Your task to perform on an android device: Turn on the flashlight Image 0: 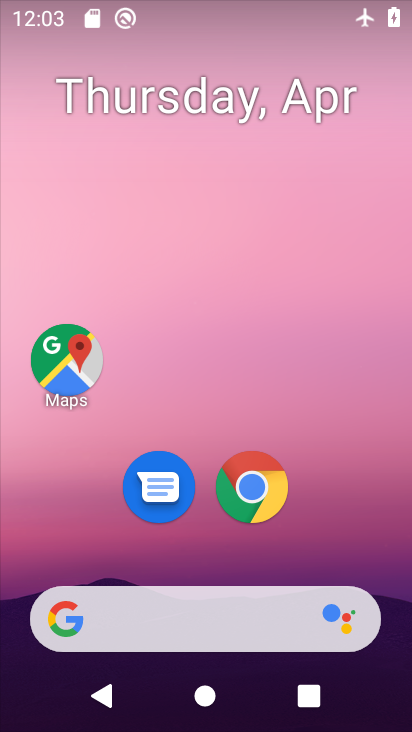
Step 0: drag from (219, 659) to (393, 43)
Your task to perform on an android device: Turn on the flashlight Image 1: 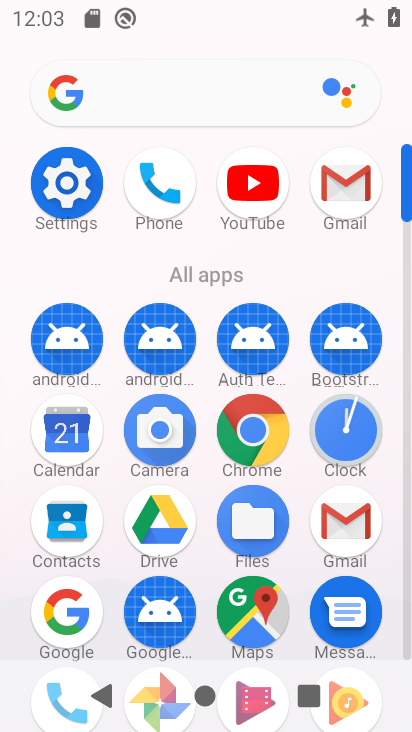
Step 1: click (53, 191)
Your task to perform on an android device: Turn on the flashlight Image 2: 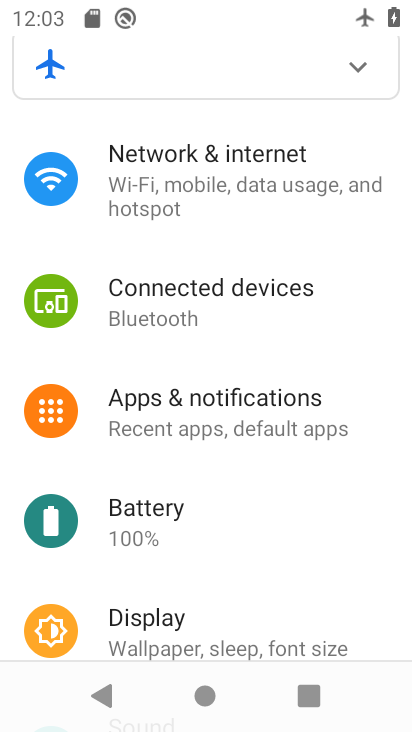
Step 2: drag from (182, 136) to (167, 330)
Your task to perform on an android device: Turn on the flashlight Image 3: 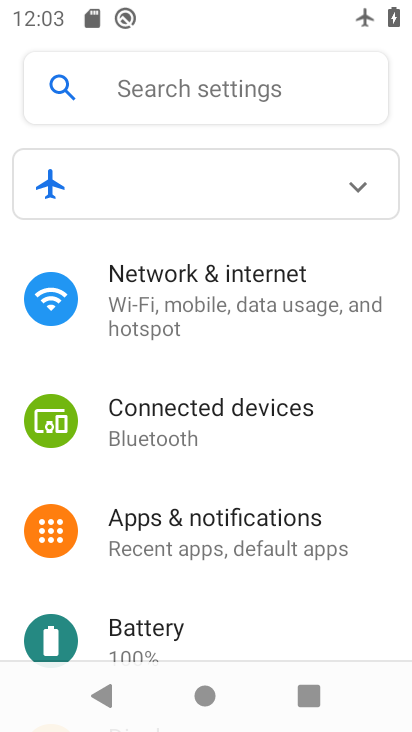
Step 3: click (166, 95)
Your task to perform on an android device: Turn on the flashlight Image 4: 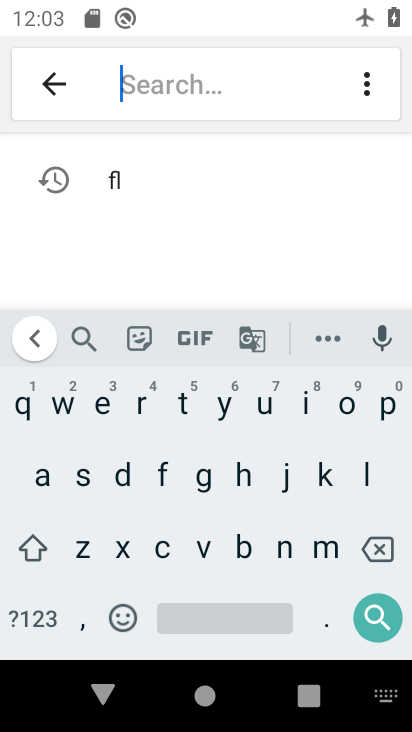
Step 4: click (155, 477)
Your task to perform on an android device: Turn on the flashlight Image 5: 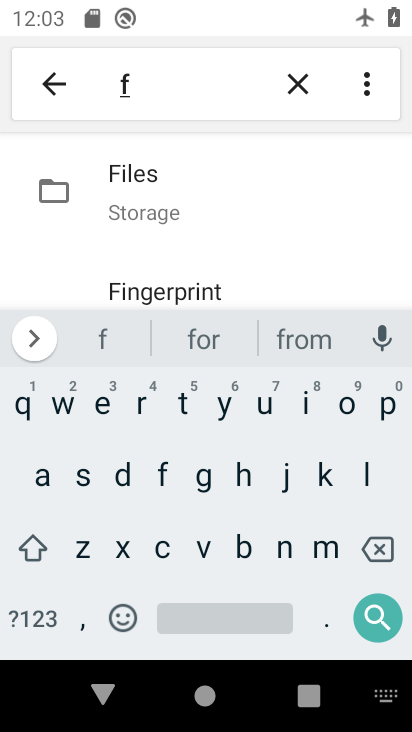
Step 5: click (363, 469)
Your task to perform on an android device: Turn on the flashlight Image 6: 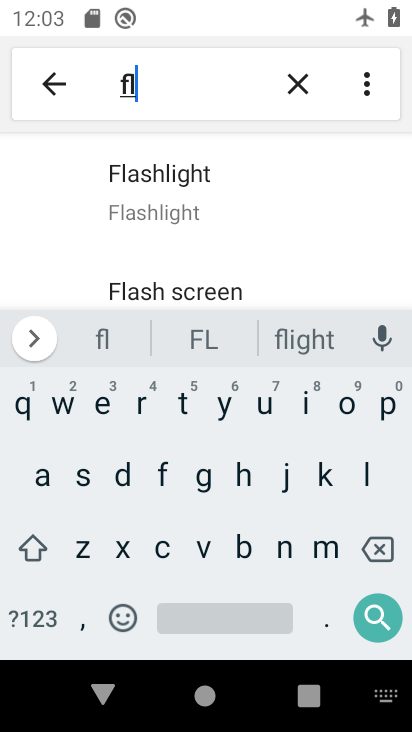
Step 6: click (139, 168)
Your task to perform on an android device: Turn on the flashlight Image 7: 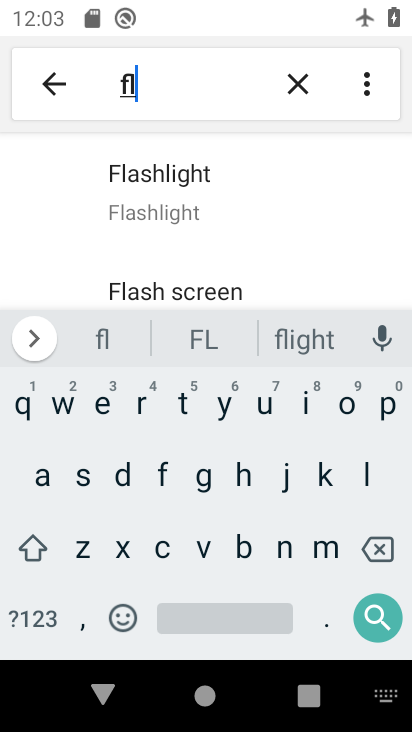
Step 7: click (132, 204)
Your task to perform on an android device: Turn on the flashlight Image 8: 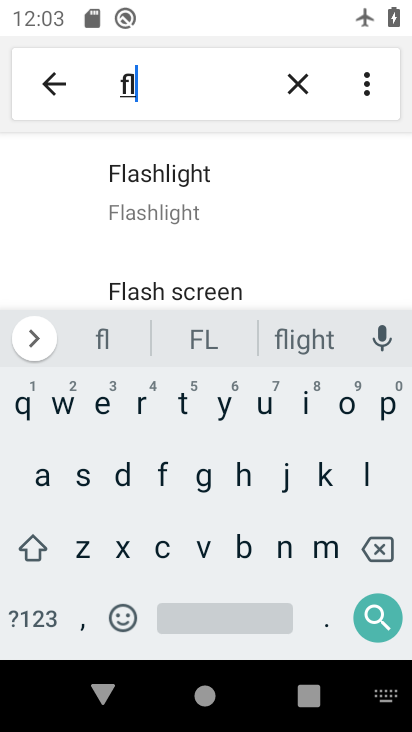
Step 8: task complete